Your task to perform on an android device: change the upload size in google photos Image 0: 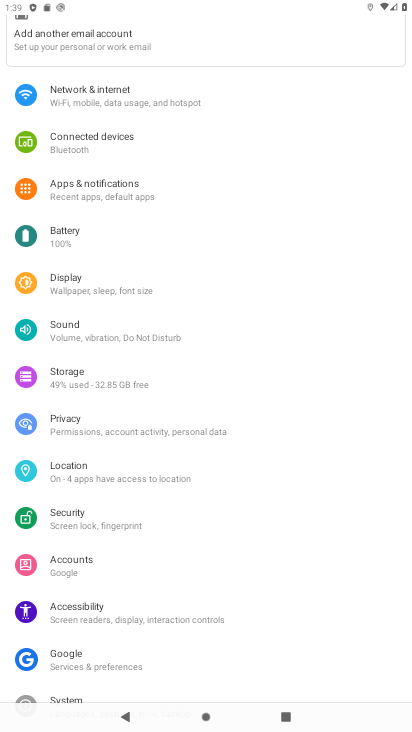
Step 0: press home button
Your task to perform on an android device: change the upload size in google photos Image 1: 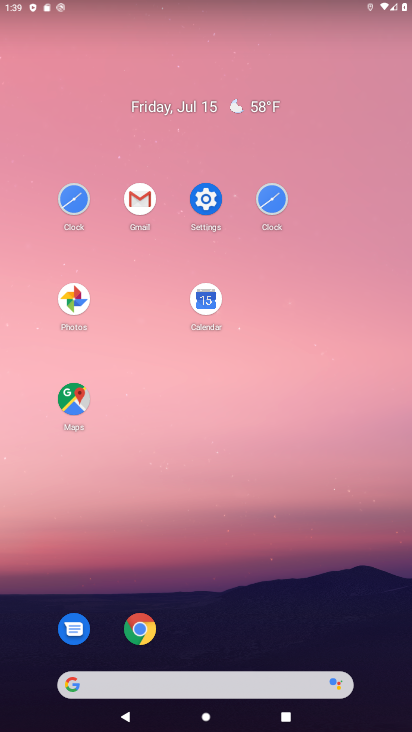
Step 1: drag from (288, 614) to (268, 163)
Your task to perform on an android device: change the upload size in google photos Image 2: 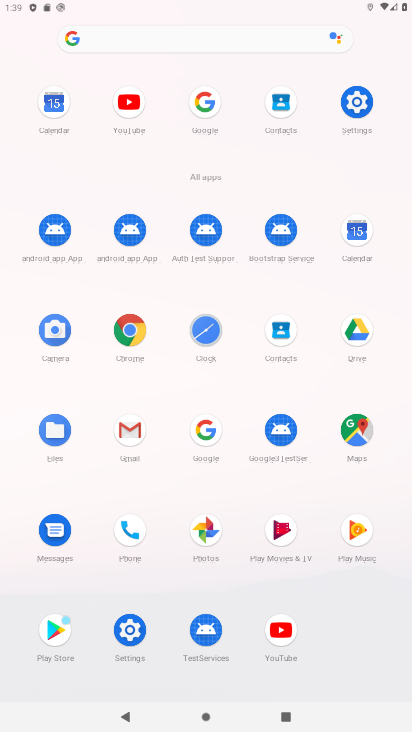
Step 2: click (206, 539)
Your task to perform on an android device: change the upload size in google photos Image 3: 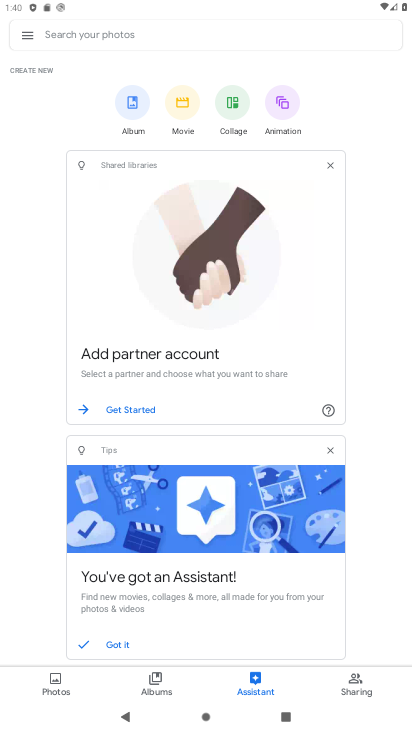
Step 3: click (31, 31)
Your task to perform on an android device: change the upload size in google photos Image 4: 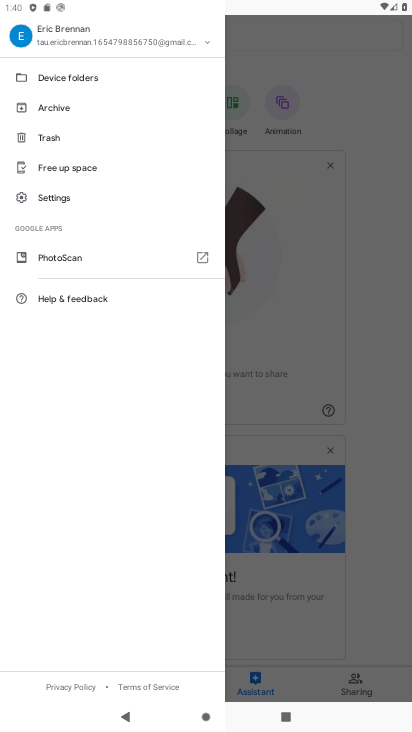
Step 4: click (83, 207)
Your task to perform on an android device: change the upload size in google photos Image 5: 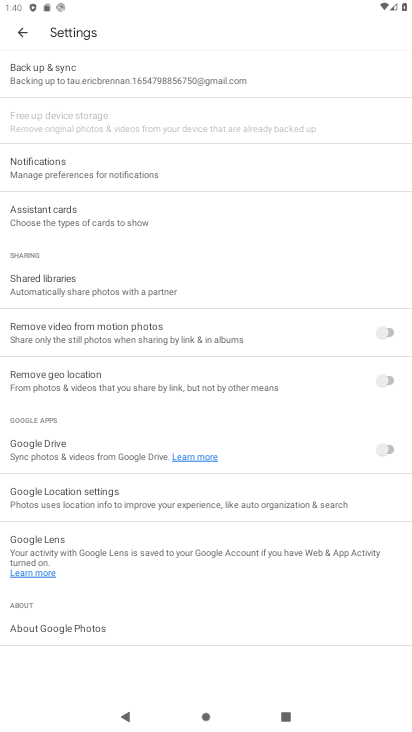
Step 5: click (133, 89)
Your task to perform on an android device: change the upload size in google photos Image 6: 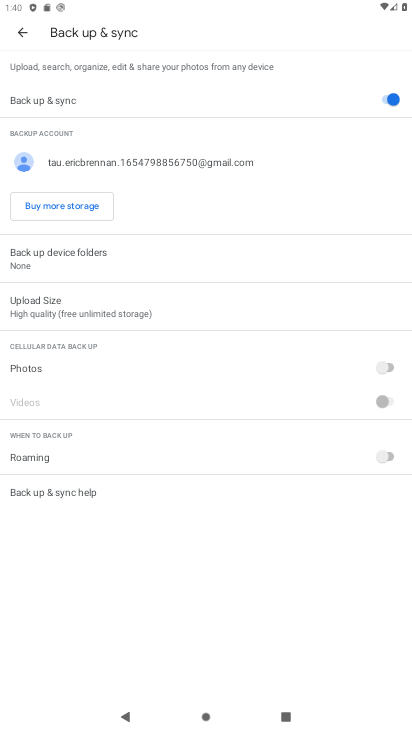
Step 6: click (103, 316)
Your task to perform on an android device: change the upload size in google photos Image 7: 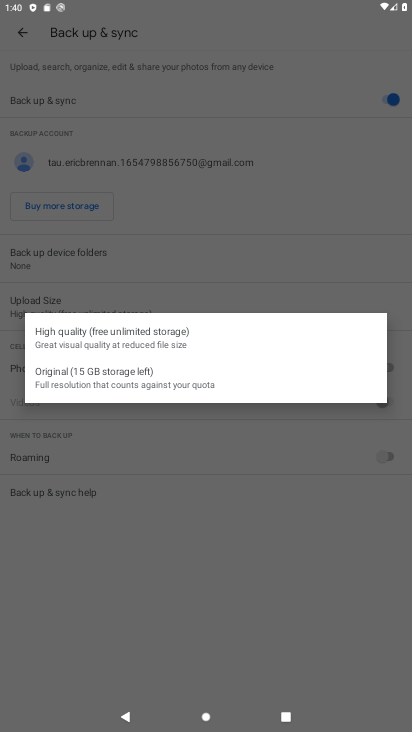
Step 7: click (102, 383)
Your task to perform on an android device: change the upload size in google photos Image 8: 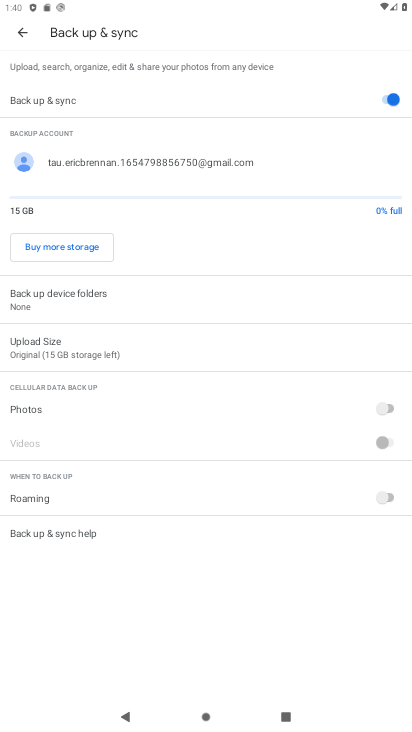
Step 8: task complete